Your task to perform on an android device: Open sound settings Image 0: 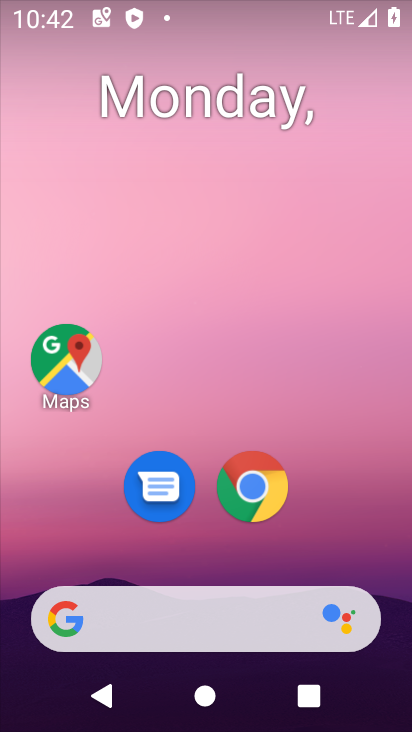
Step 0: drag from (26, 590) to (282, 135)
Your task to perform on an android device: Open sound settings Image 1: 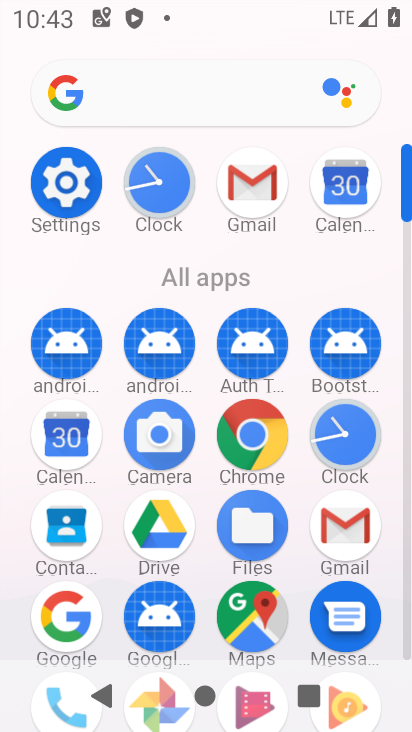
Step 1: click (51, 192)
Your task to perform on an android device: Open sound settings Image 2: 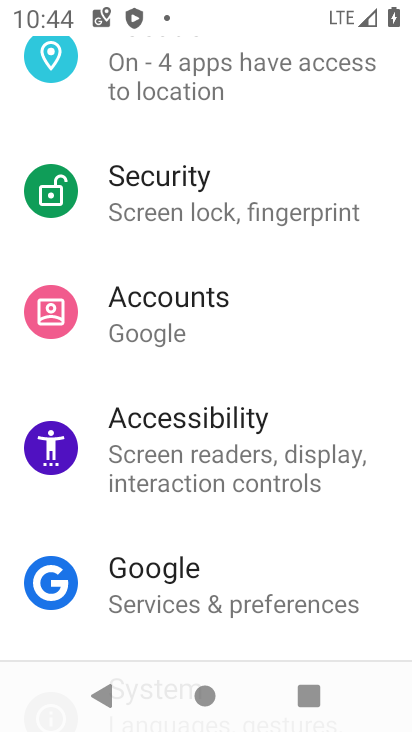
Step 2: drag from (170, 119) to (119, 485)
Your task to perform on an android device: Open sound settings Image 3: 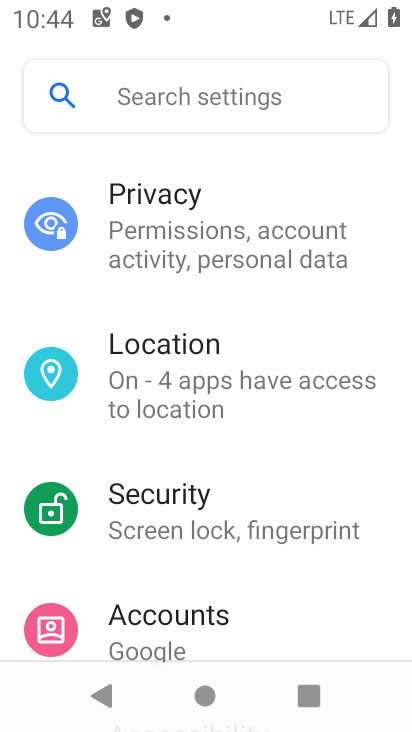
Step 3: drag from (93, 160) to (86, 585)
Your task to perform on an android device: Open sound settings Image 4: 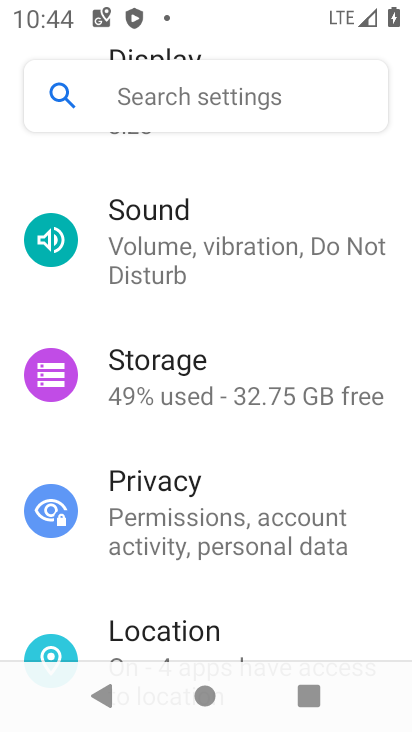
Step 4: click (132, 256)
Your task to perform on an android device: Open sound settings Image 5: 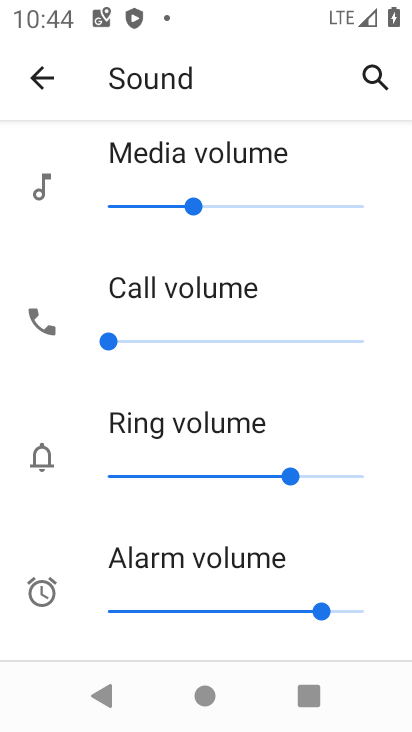
Step 5: task complete